Your task to perform on an android device: Open Google Chrome and open the bookmarks view Image 0: 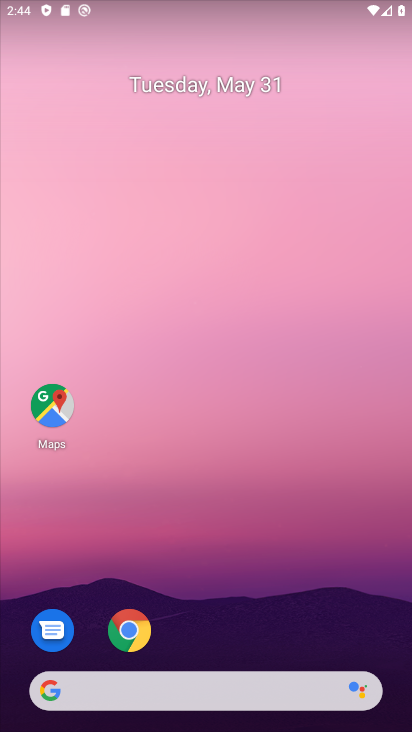
Step 0: click (135, 627)
Your task to perform on an android device: Open Google Chrome and open the bookmarks view Image 1: 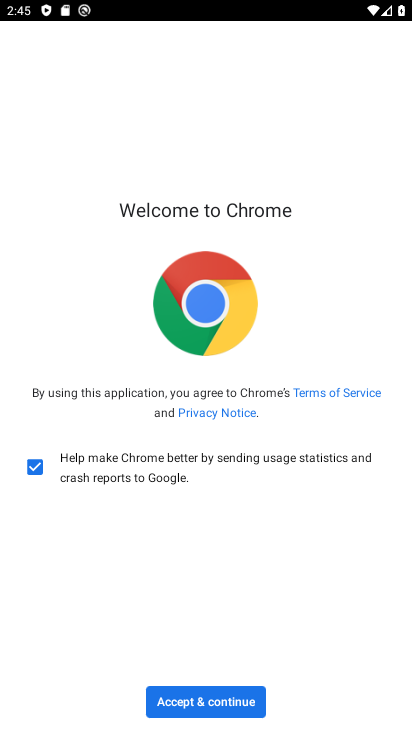
Step 1: click (206, 713)
Your task to perform on an android device: Open Google Chrome and open the bookmarks view Image 2: 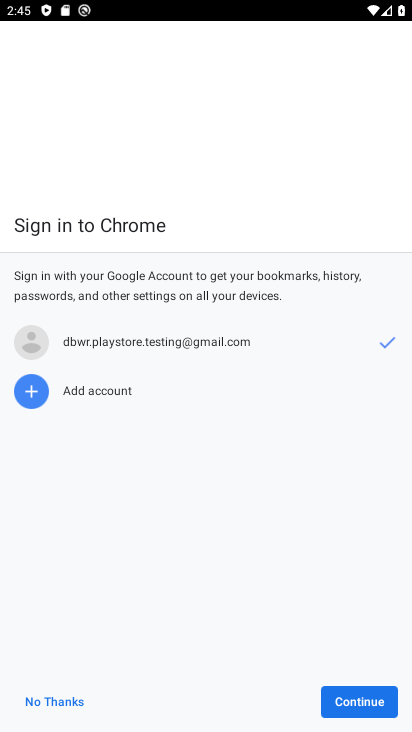
Step 2: click (344, 694)
Your task to perform on an android device: Open Google Chrome and open the bookmarks view Image 3: 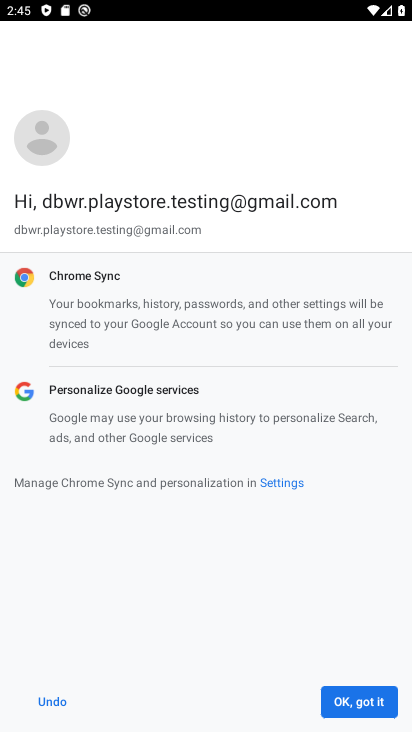
Step 3: click (346, 697)
Your task to perform on an android device: Open Google Chrome and open the bookmarks view Image 4: 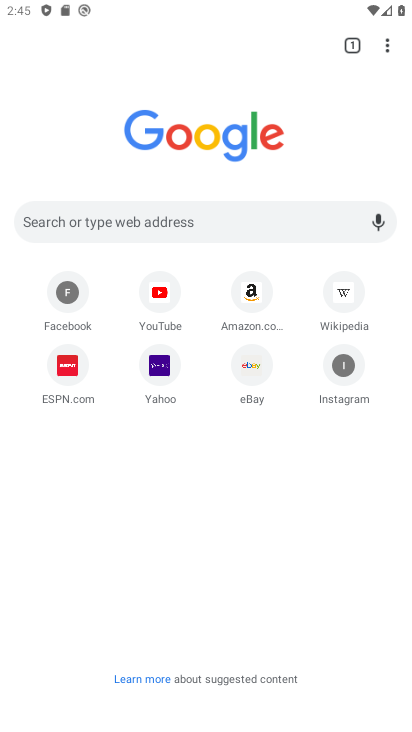
Step 4: click (380, 39)
Your task to perform on an android device: Open Google Chrome and open the bookmarks view Image 5: 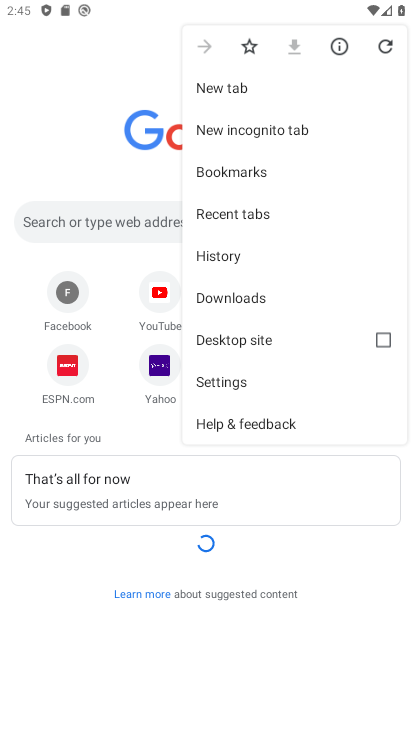
Step 5: click (248, 176)
Your task to perform on an android device: Open Google Chrome and open the bookmarks view Image 6: 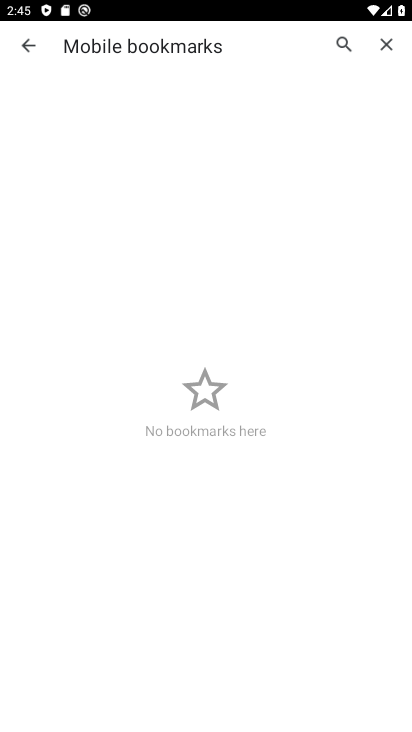
Step 6: task complete